Your task to perform on an android device: change the clock display to digital Image 0: 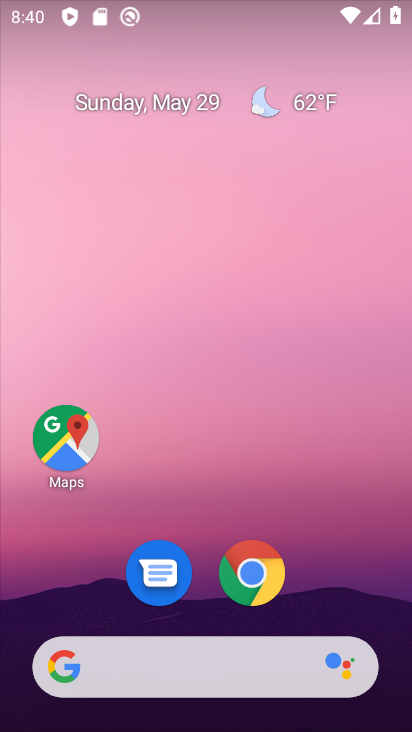
Step 0: drag from (366, 491) to (373, 183)
Your task to perform on an android device: change the clock display to digital Image 1: 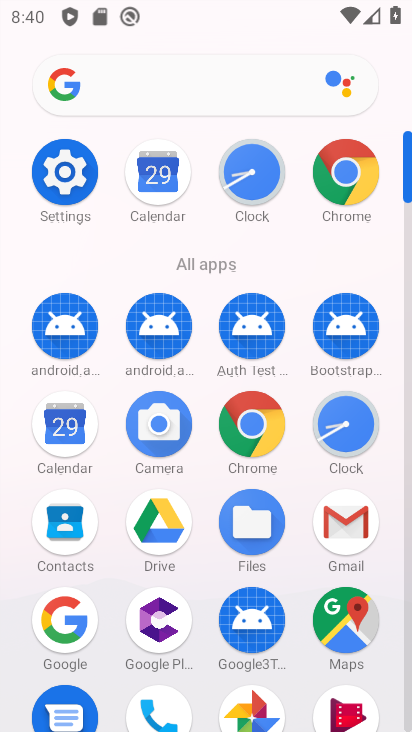
Step 1: click (260, 173)
Your task to perform on an android device: change the clock display to digital Image 2: 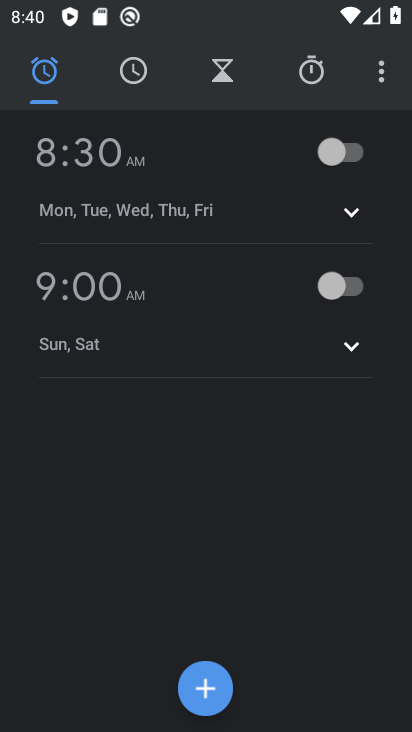
Step 2: click (375, 65)
Your task to perform on an android device: change the clock display to digital Image 3: 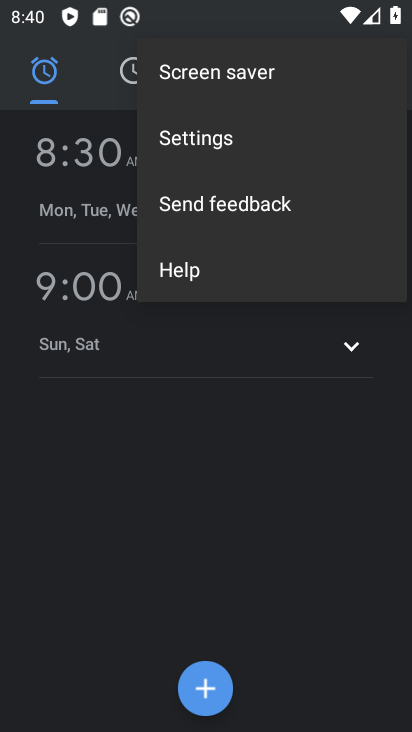
Step 3: click (212, 141)
Your task to perform on an android device: change the clock display to digital Image 4: 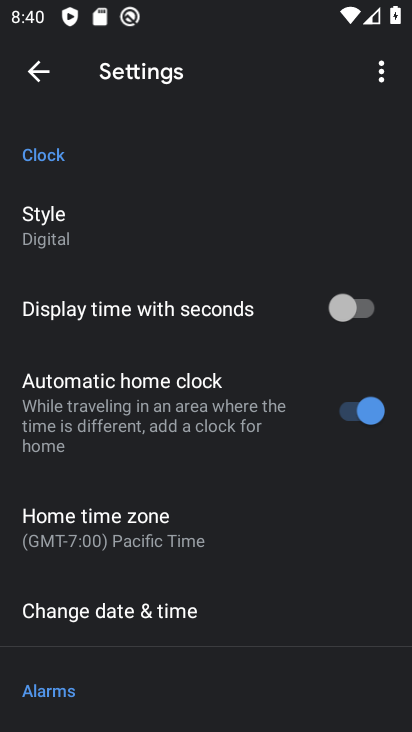
Step 4: click (53, 244)
Your task to perform on an android device: change the clock display to digital Image 5: 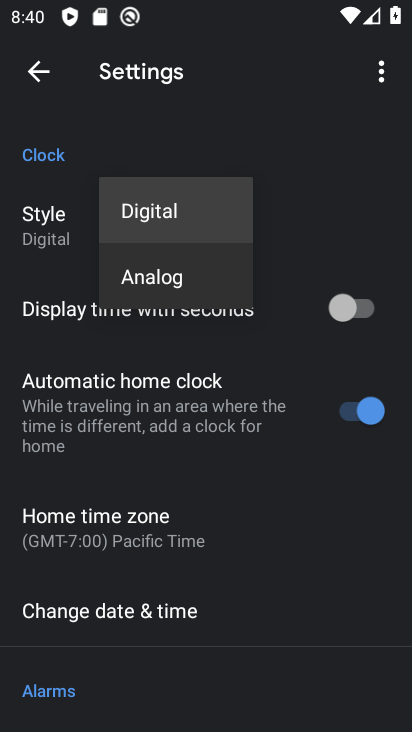
Step 5: task complete